Your task to perform on an android device: turn on bluetooth scan Image 0: 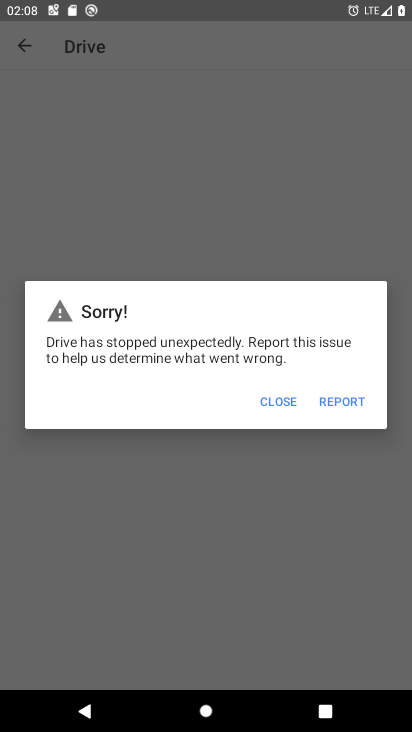
Step 0: press home button
Your task to perform on an android device: turn on bluetooth scan Image 1: 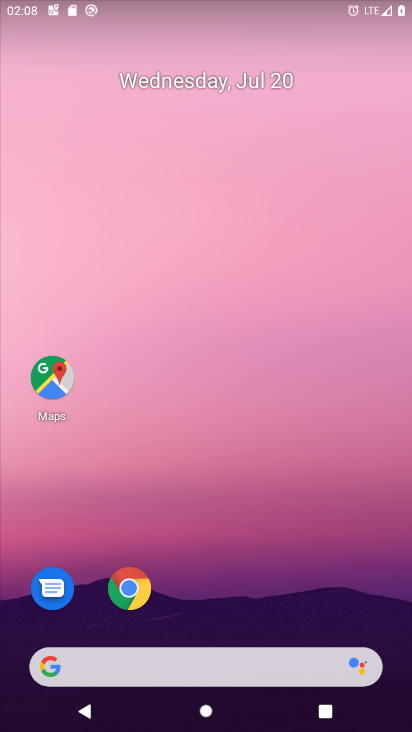
Step 1: drag from (224, 674) to (225, 121)
Your task to perform on an android device: turn on bluetooth scan Image 2: 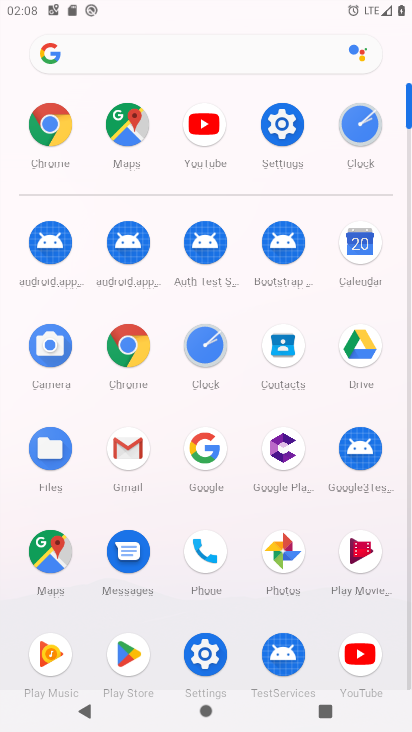
Step 2: click (277, 110)
Your task to perform on an android device: turn on bluetooth scan Image 3: 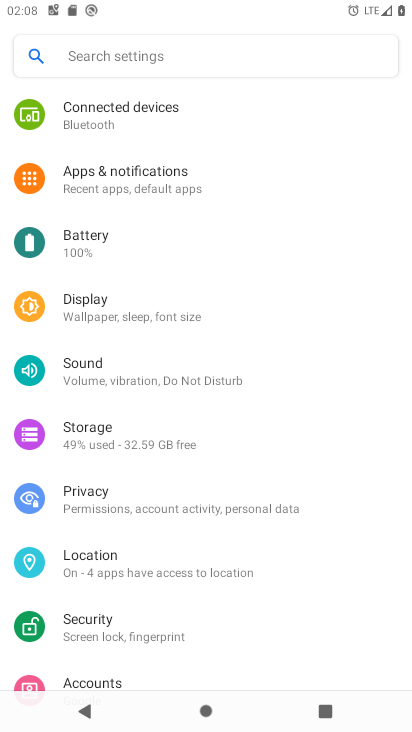
Step 3: click (191, 55)
Your task to perform on an android device: turn on bluetooth scan Image 4: 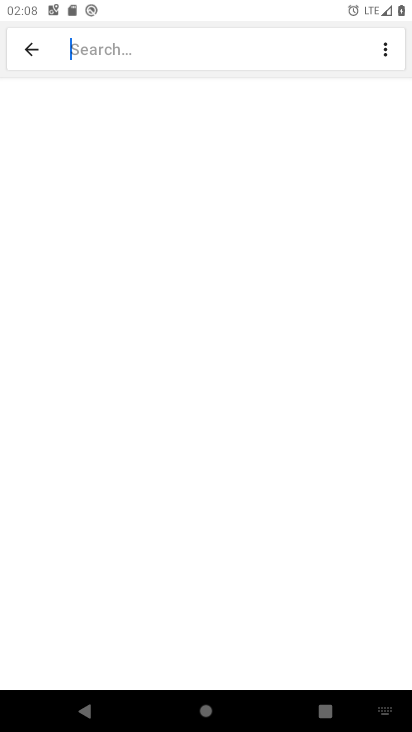
Step 4: click (252, 56)
Your task to perform on an android device: turn on bluetooth scan Image 5: 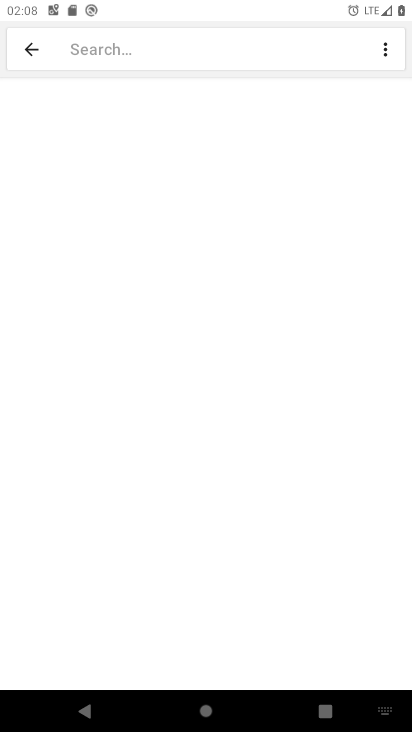
Step 5: type "bluetooth "
Your task to perform on an android device: turn on bluetooth scan Image 6: 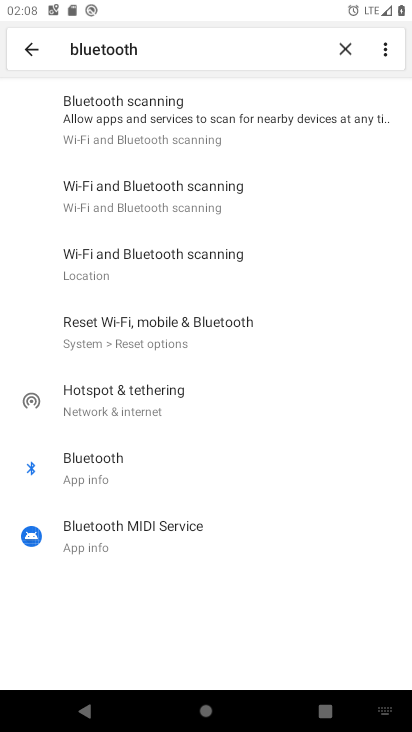
Step 6: click (134, 121)
Your task to perform on an android device: turn on bluetooth scan Image 7: 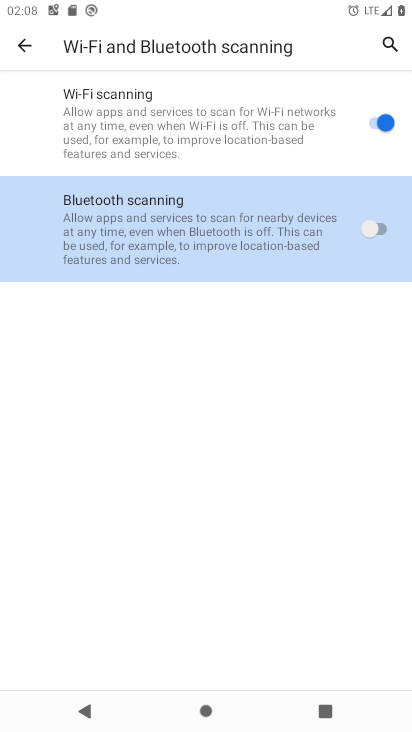
Step 7: click (384, 228)
Your task to perform on an android device: turn on bluetooth scan Image 8: 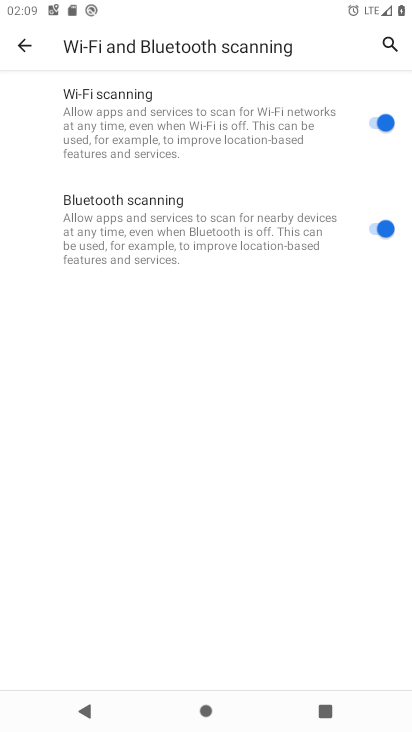
Step 8: task complete